Your task to perform on an android device: Play the last video I watched on Youtube Image 0: 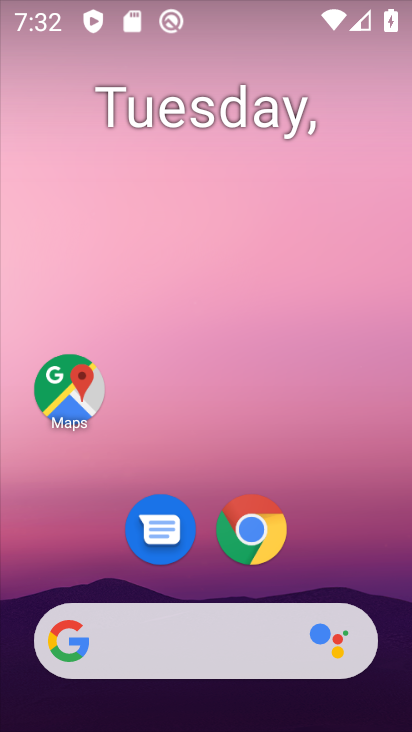
Step 0: drag from (132, 629) to (335, 162)
Your task to perform on an android device: Play the last video I watched on Youtube Image 1: 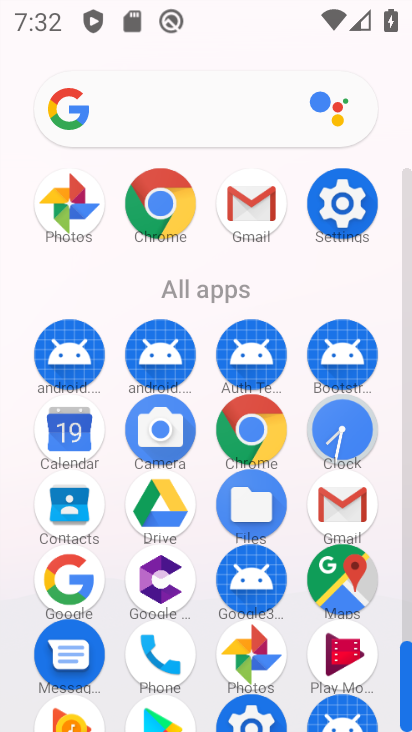
Step 1: drag from (221, 588) to (409, 203)
Your task to perform on an android device: Play the last video I watched on Youtube Image 2: 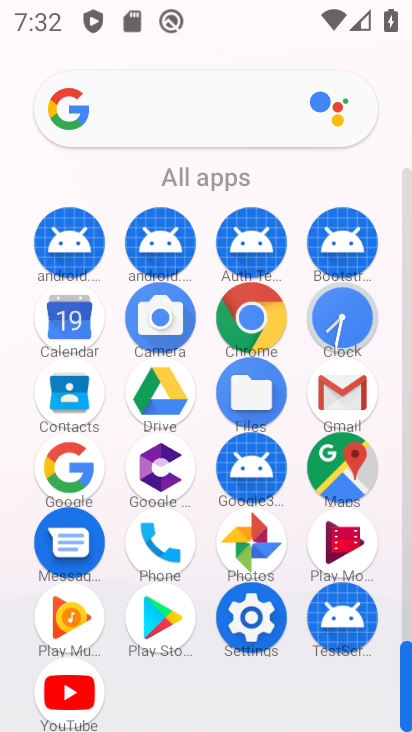
Step 2: click (70, 690)
Your task to perform on an android device: Play the last video I watched on Youtube Image 3: 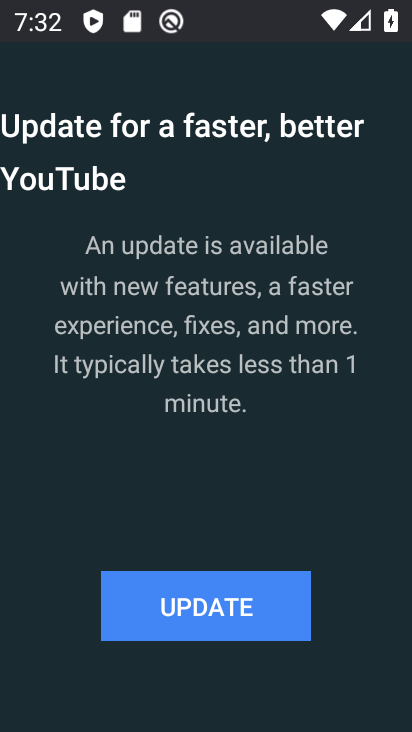
Step 3: click (191, 605)
Your task to perform on an android device: Play the last video I watched on Youtube Image 4: 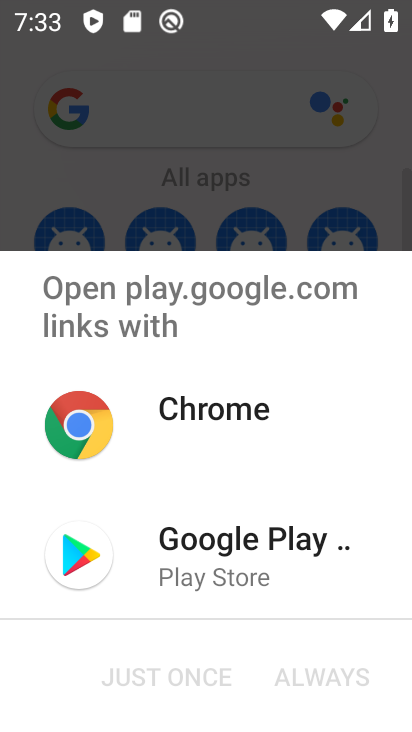
Step 4: click (217, 543)
Your task to perform on an android device: Play the last video I watched on Youtube Image 5: 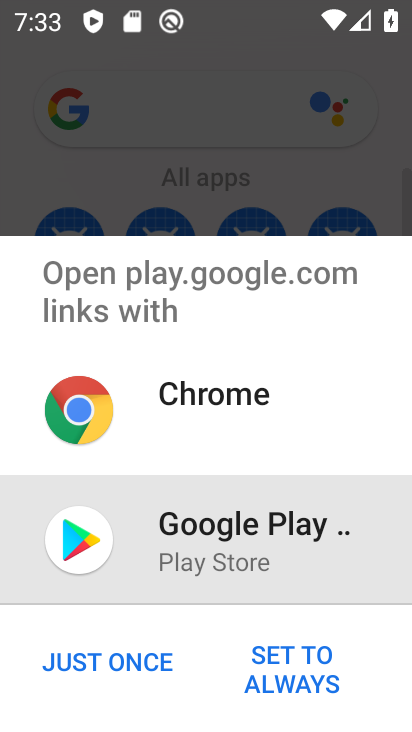
Step 5: click (126, 661)
Your task to perform on an android device: Play the last video I watched on Youtube Image 6: 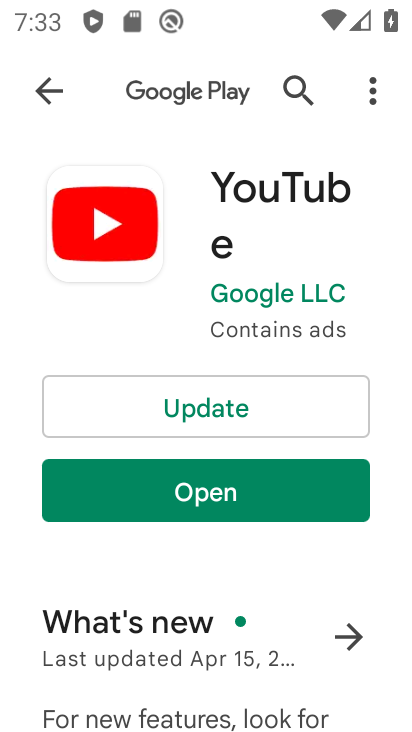
Step 6: click (244, 411)
Your task to perform on an android device: Play the last video I watched on Youtube Image 7: 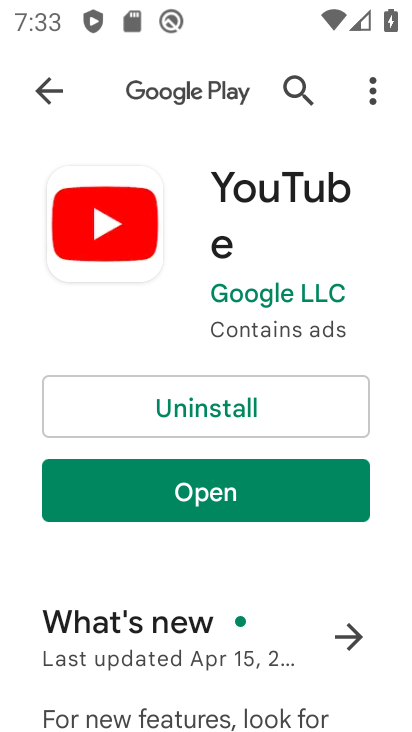
Step 7: click (213, 493)
Your task to perform on an android device: Play the last video I watched on Youtube Image 8: 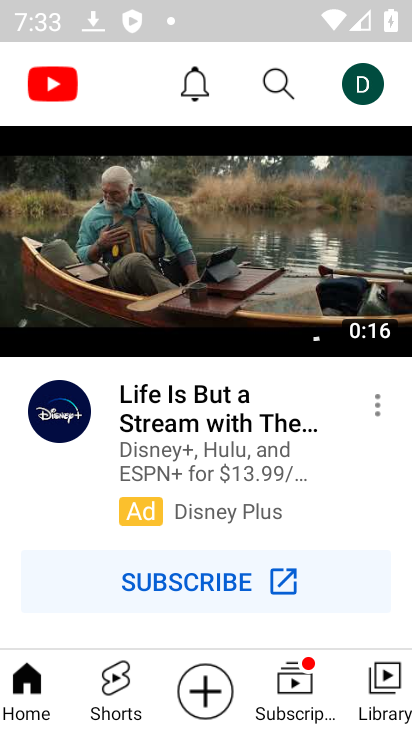
Step 8: click (380, 684)
Your task to perform on an android device: Play the last video I watched on Youtube Image 9: 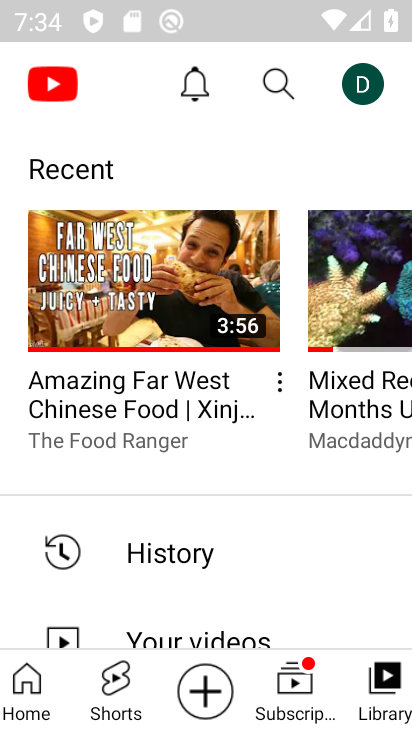
Step 9: drag from (222, 520) to (270, 382)
Your task to perform on an android device: Play the last video I watched on Youtube Image 10: 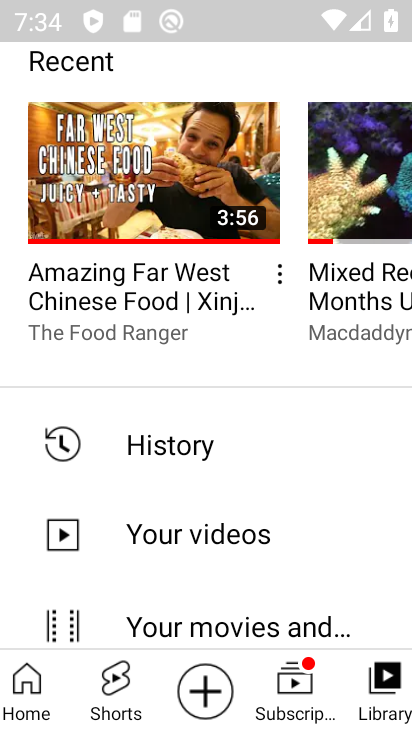
Step 10: click (183, 440)
Your task to perform on an android device: Play the last video I watched on Youtube Image 11: 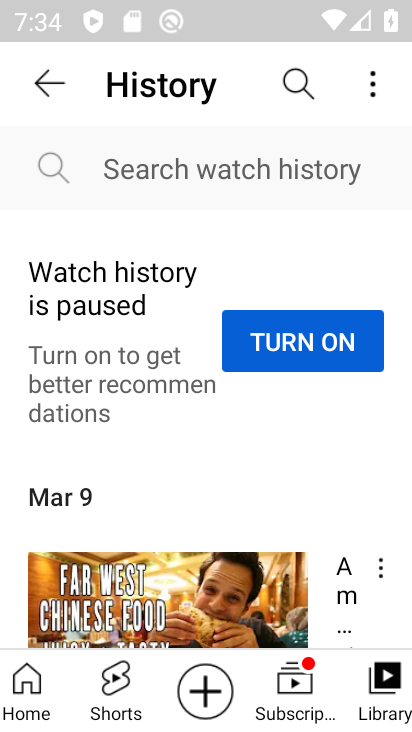
Step 11: drag from (201, 487) to (305, 109)
Your task to perform on an android device: Play the last video I watched on Youtube Image 12: 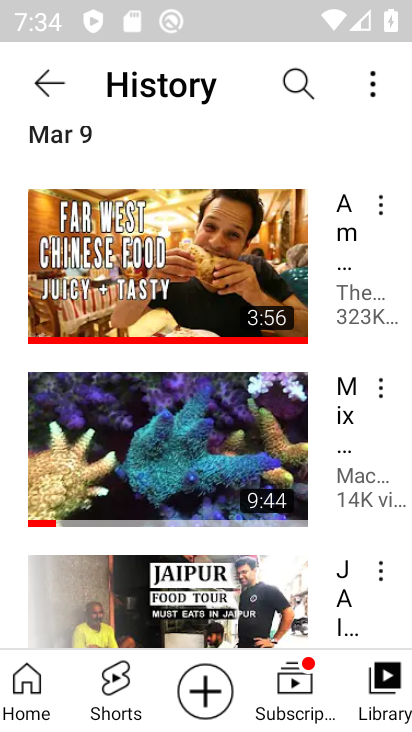
Step 12: click (217, 271)
Your task to perform on an android device: Play the last video I watched on Youtube Image 13: 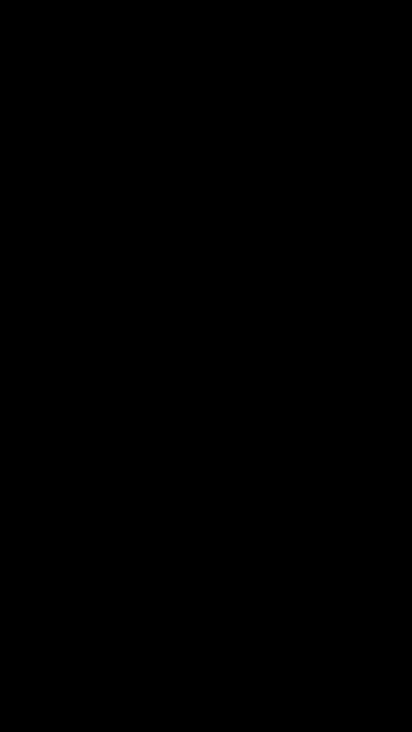
Step 13: task complete